Your task to perform on an android device: Open privacy settings Image 0: 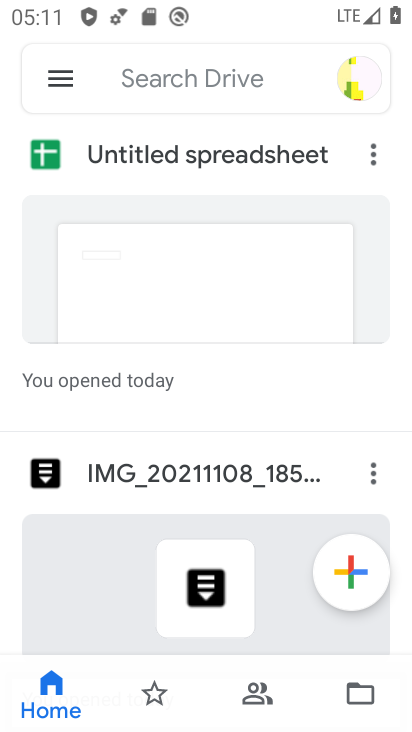
Step 0: press home button
Your task to perform on an android device: Open privacy settings Image 1: 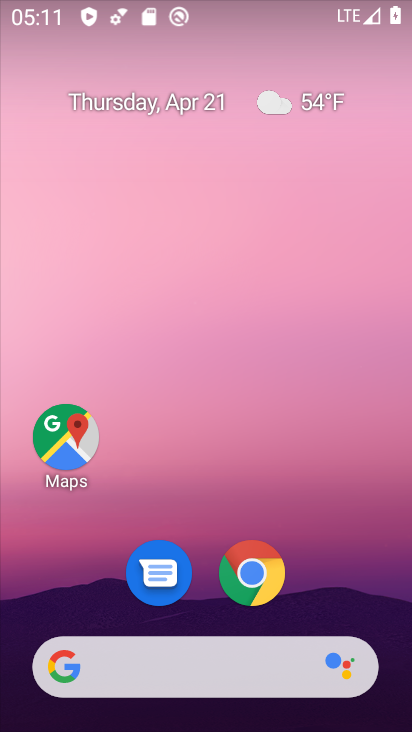
Step 1: drag from (378, 602) to (286, 158)
Your task to perform on an android device: Open privacy settings Image 2: 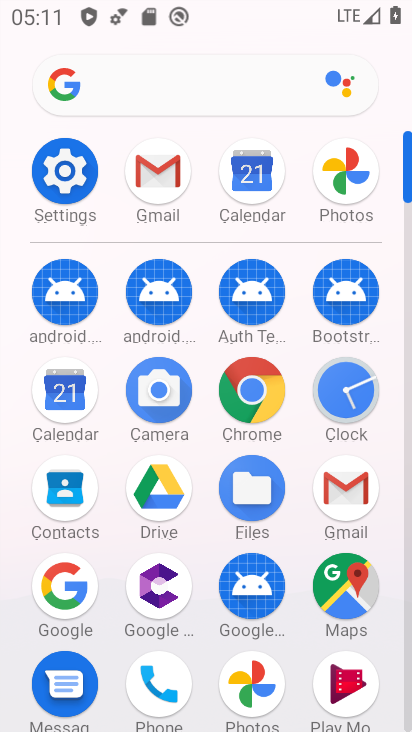
Step 2: click (410, 709)
Your task to perform on an android device: Open privacy settings Image 3: 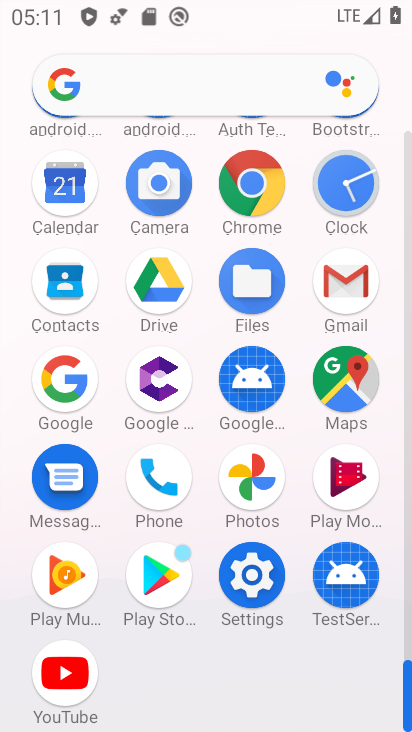
Step 3: click (256, 572)
Your task to perform on an android device: Open privacy settings Image 4: 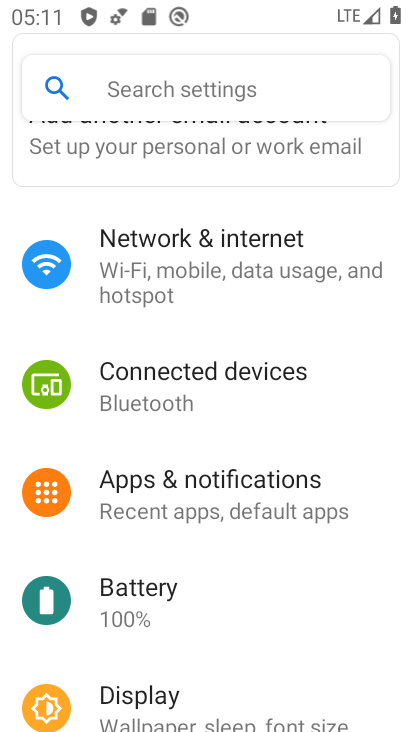
Step 4: drag from (272, 635) to (318, 306)
Your task to perform on an android device: Open privacy settings Image 5: 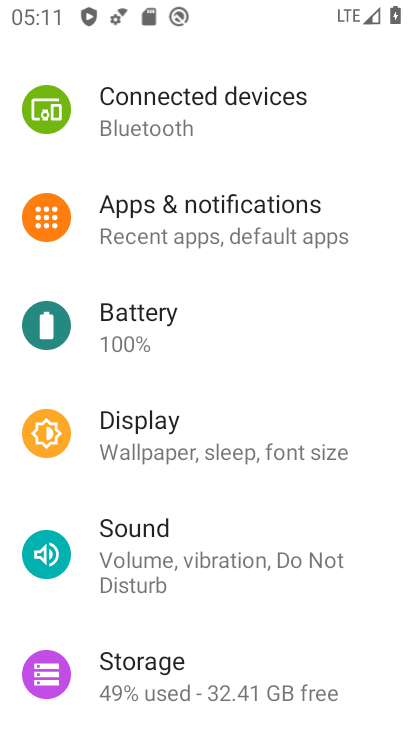
Step 5: drag from (346, 598) to (368, 194)
Your task to perform on an android device: Open privacy settings Image 6: 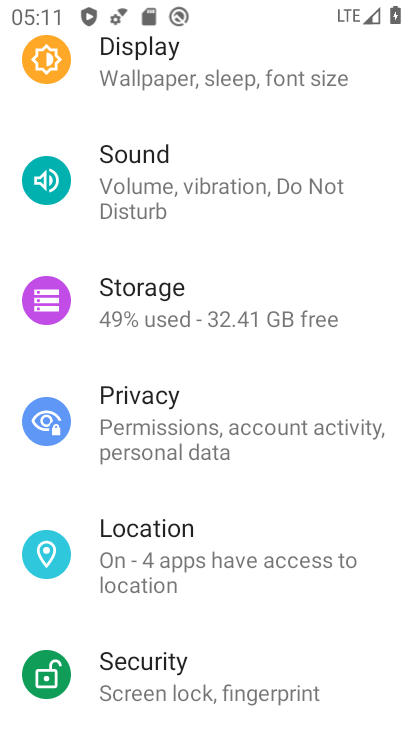
Step 6: click (125, 416)
Your task to perform on an android device: Open privacy settings Image 7: 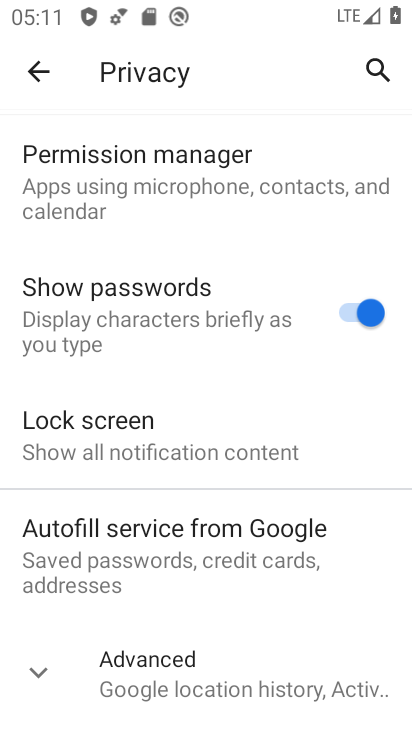
Step 7: click (37, 675)
Your task to perform on an android device: Open privacy settings Image 8: 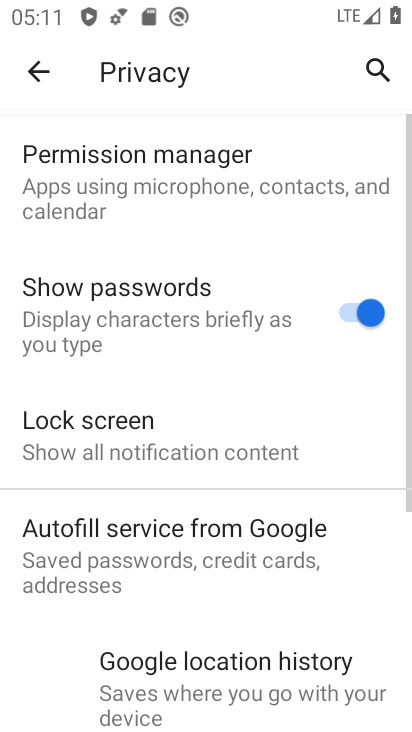
Step 8: task complete